Your task to perform on an android device: change the clock display to analog Image 0: 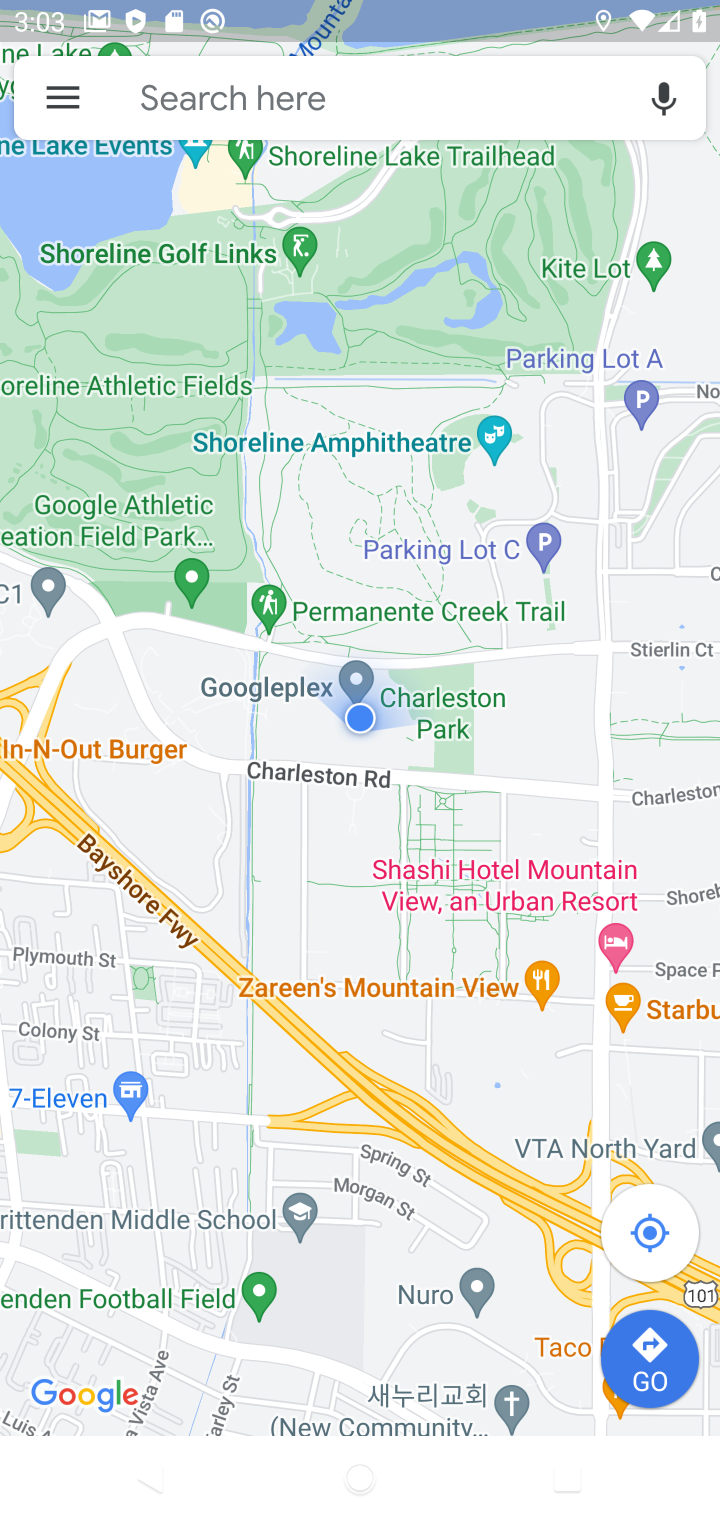
Step 0: press home button
Your task to perform on an android device: change the clock display to analog Image 1: 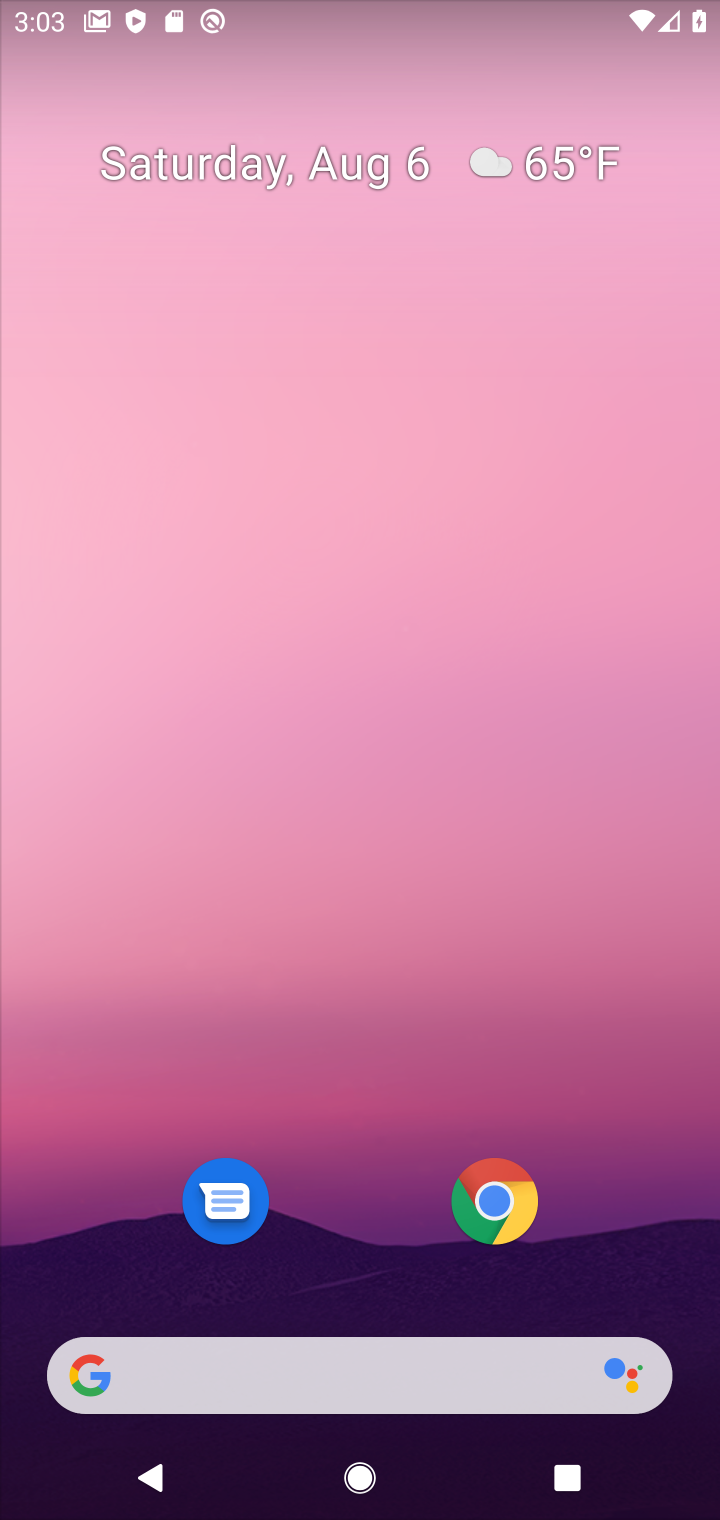
Step 1: drag from (290, 981) to (518, 193)
Your task to perform on an android device: change the clock display to analog Image 2: 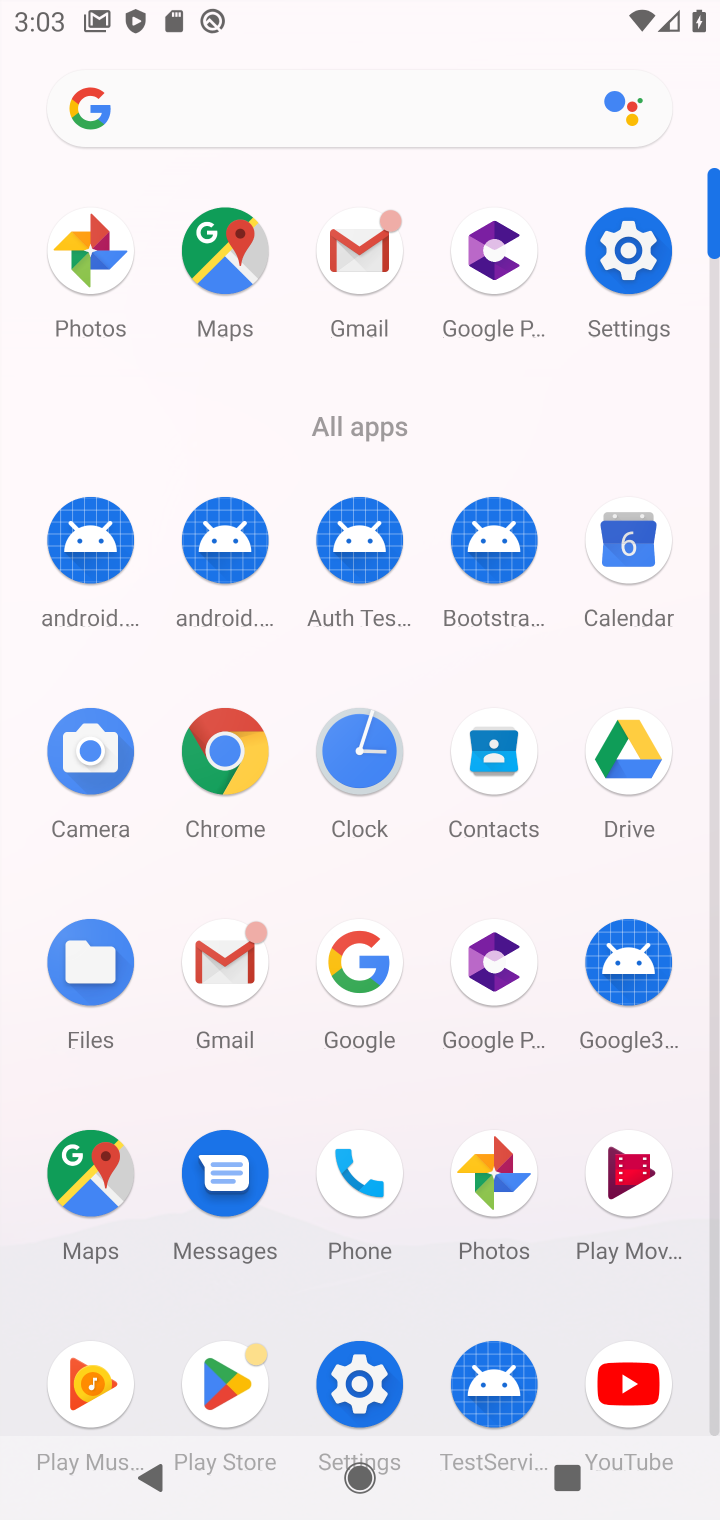
Step 2: click (358, 757)
Your task to perform on an android device: change the clock display to analog Image 3: 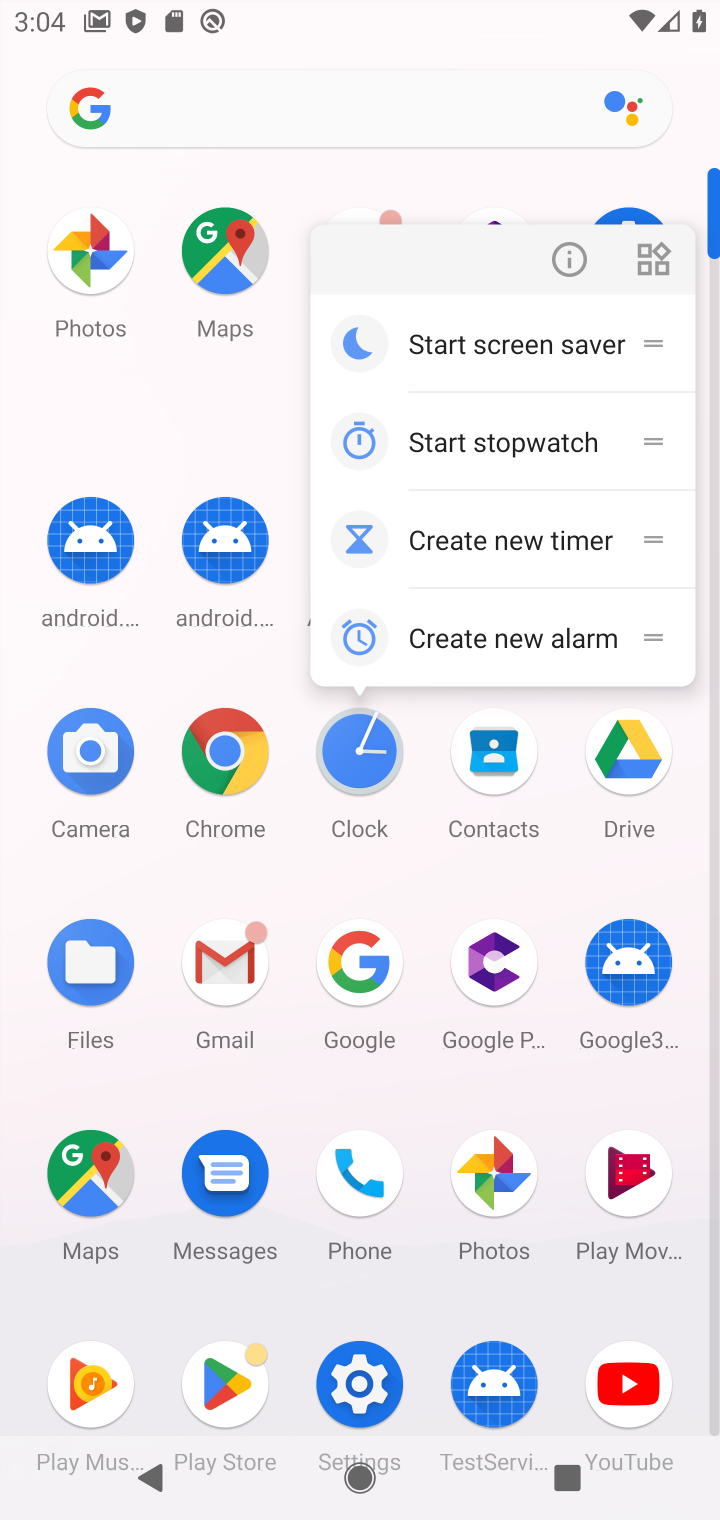
Step 3: click (319, 742)
Your task to perform on an android device: change the clock display to analog Image 4: 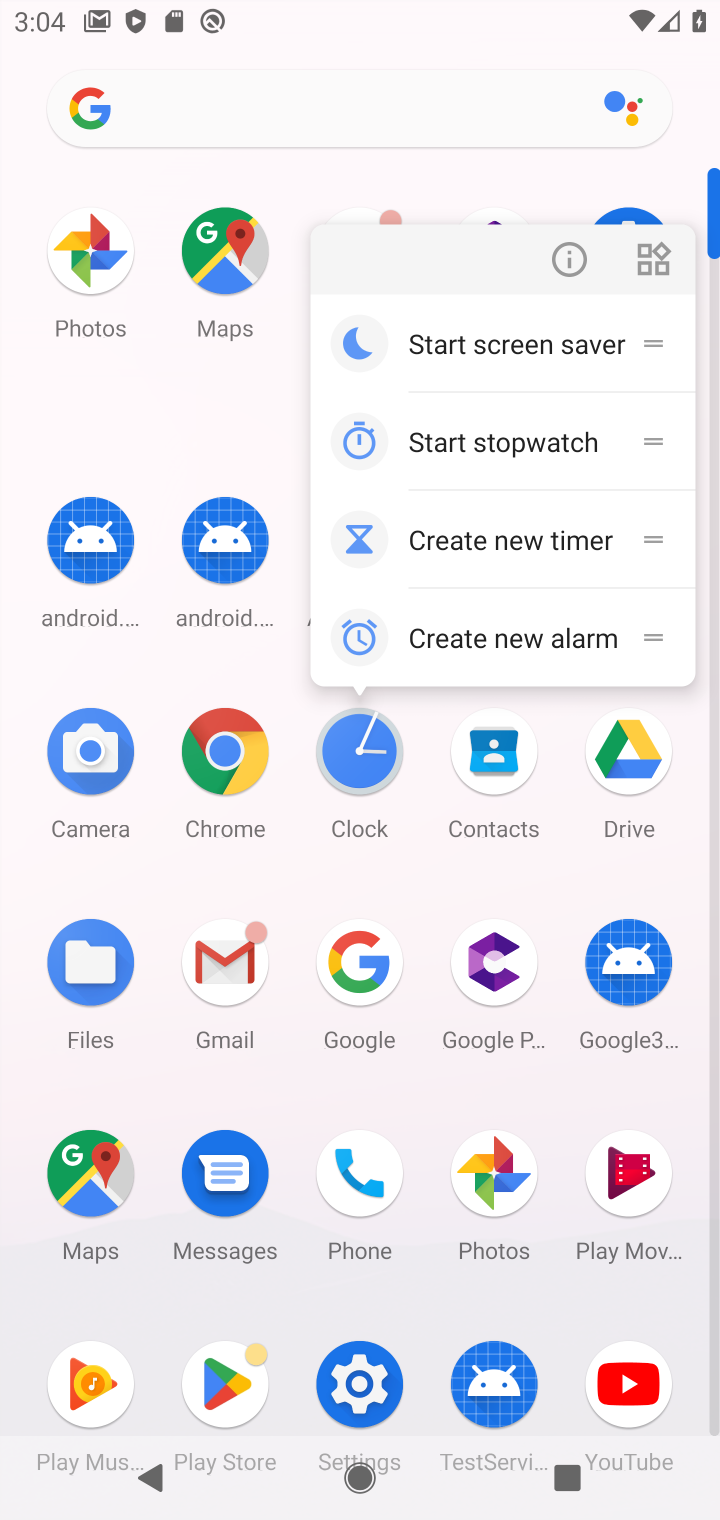
Step 4: click (668, 211)
Your task to perform on an android device: change the clock display to analog Image 5: 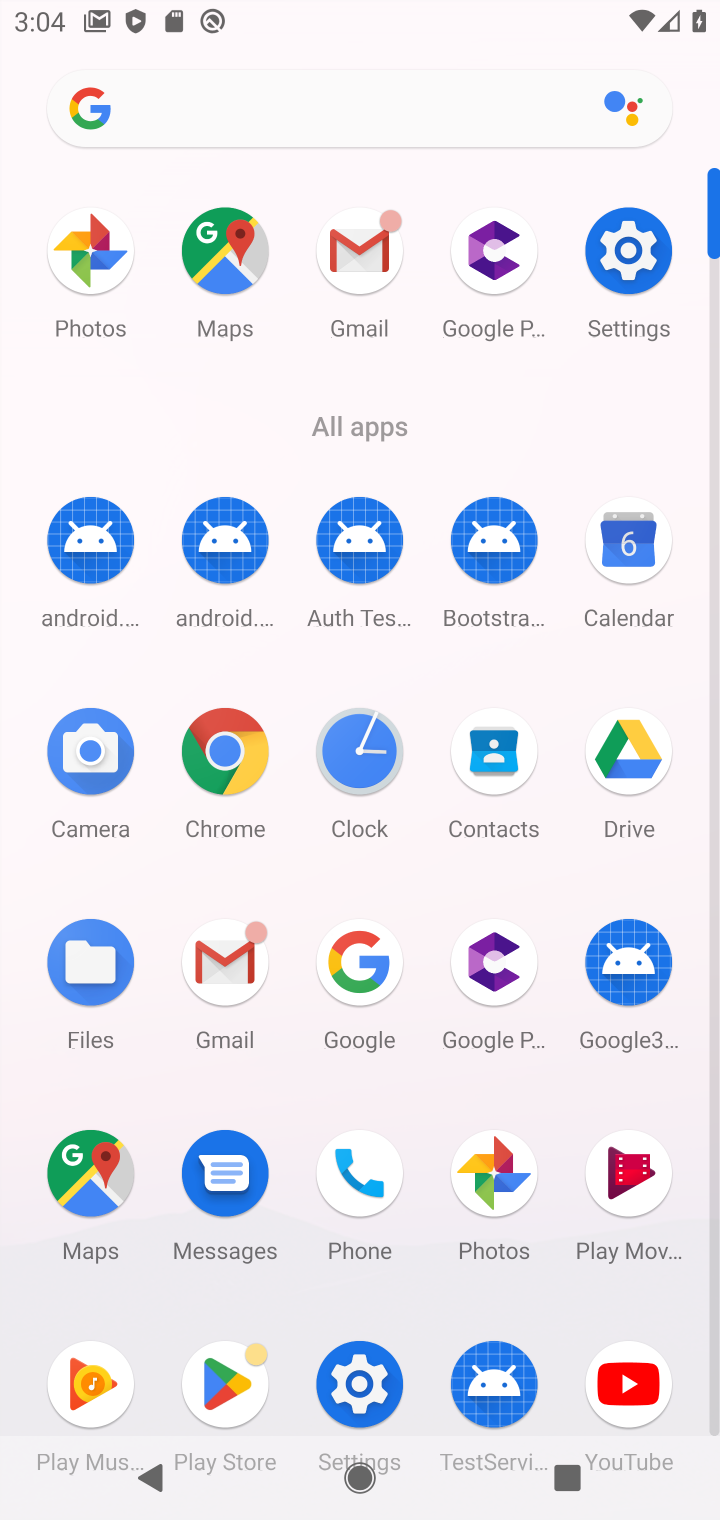
Step 5: click (386, 762)
Your task to perform on an android device: change the clock display to analog Image 6: 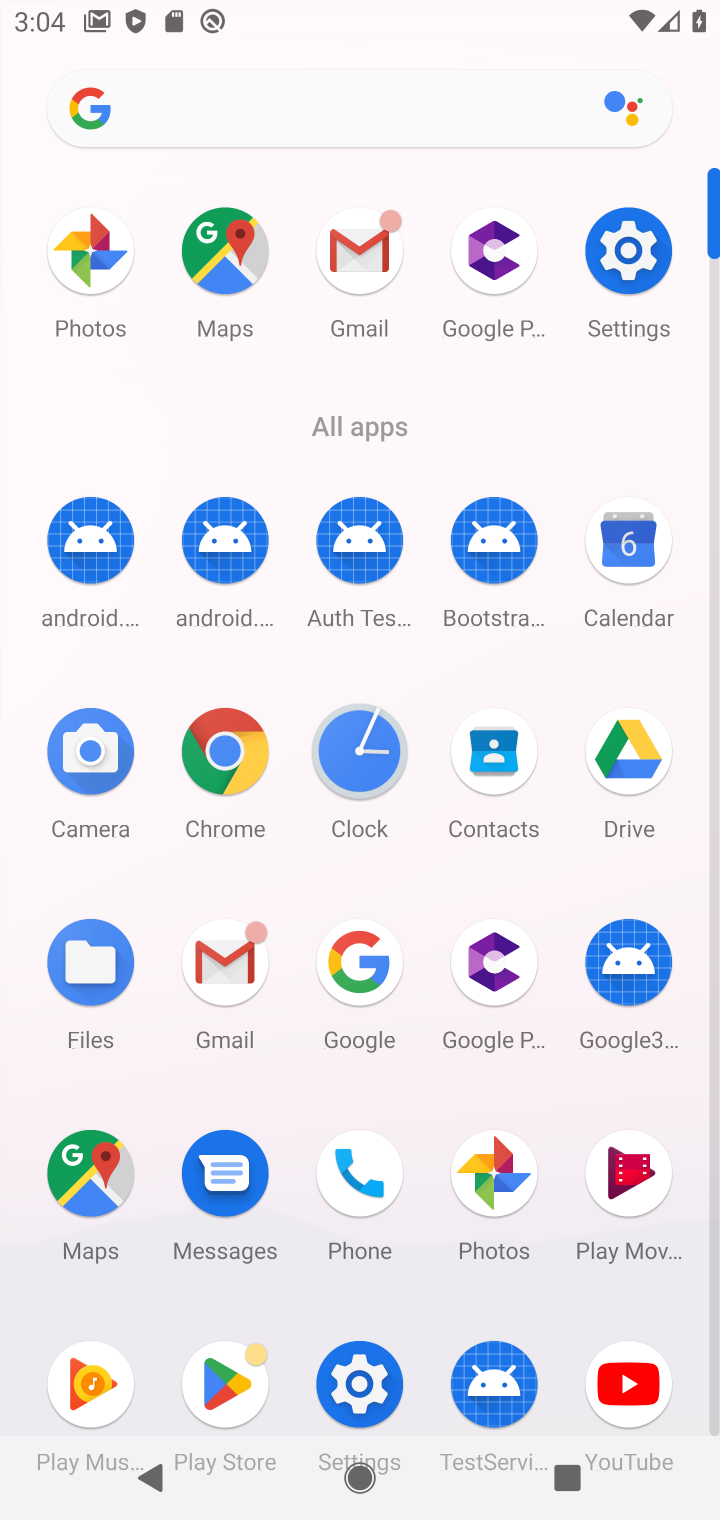
Step 6: click (386, 762)
Your task to perform on an android device: change the clock display to analog Image 7: 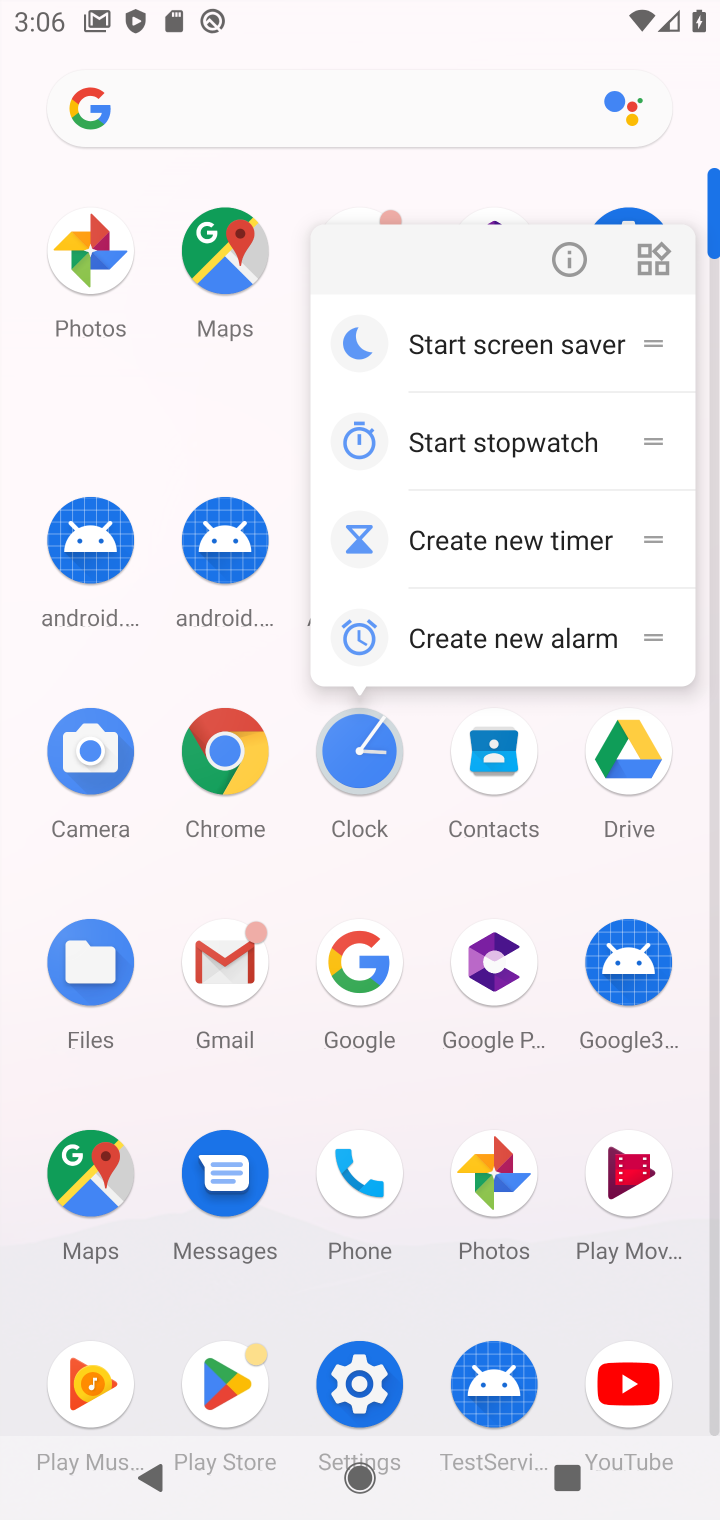
Step 7: click (345, 755)
Your task to perform on an android device: change the clock display to analog Image 8: 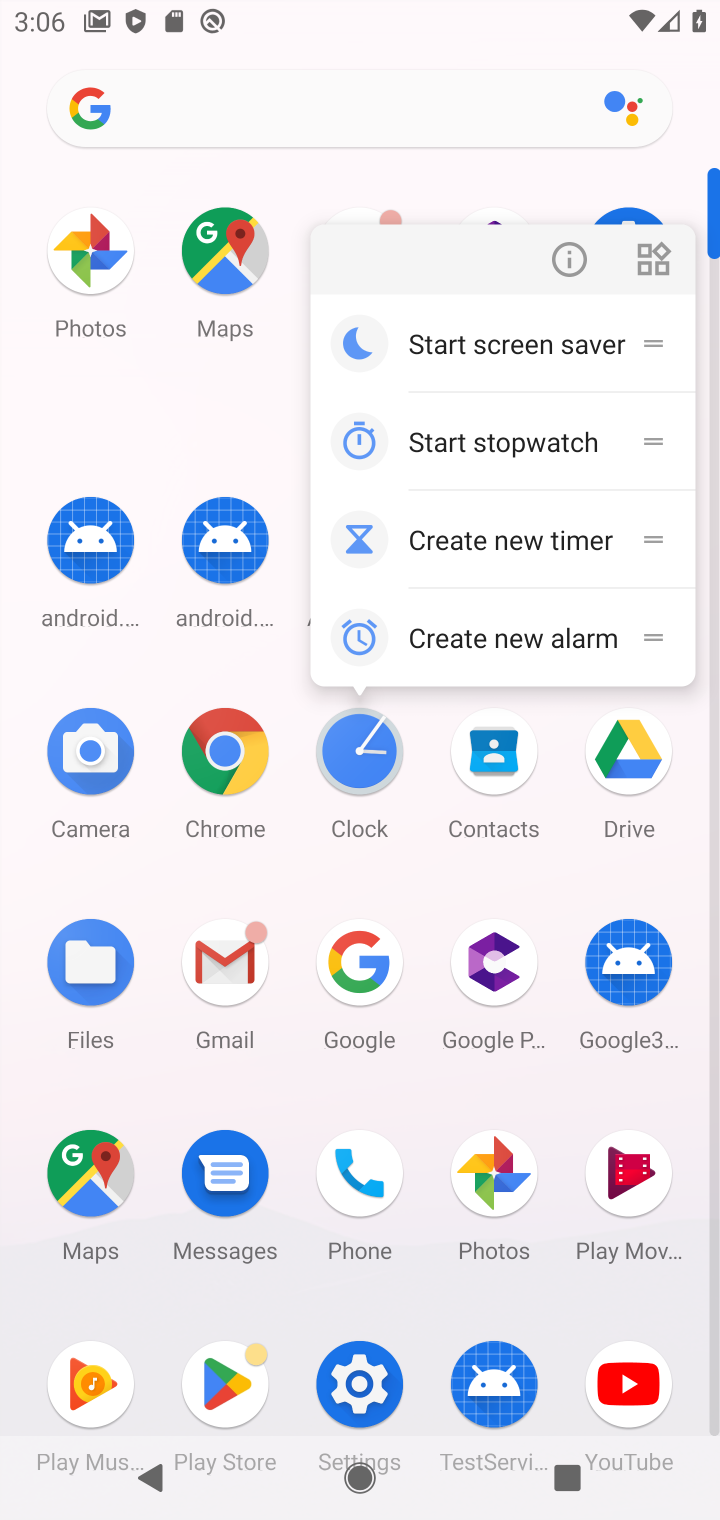
Step 8: click (345, 755)
Your task to perform on an android device: change the clock display to analog Image 9: 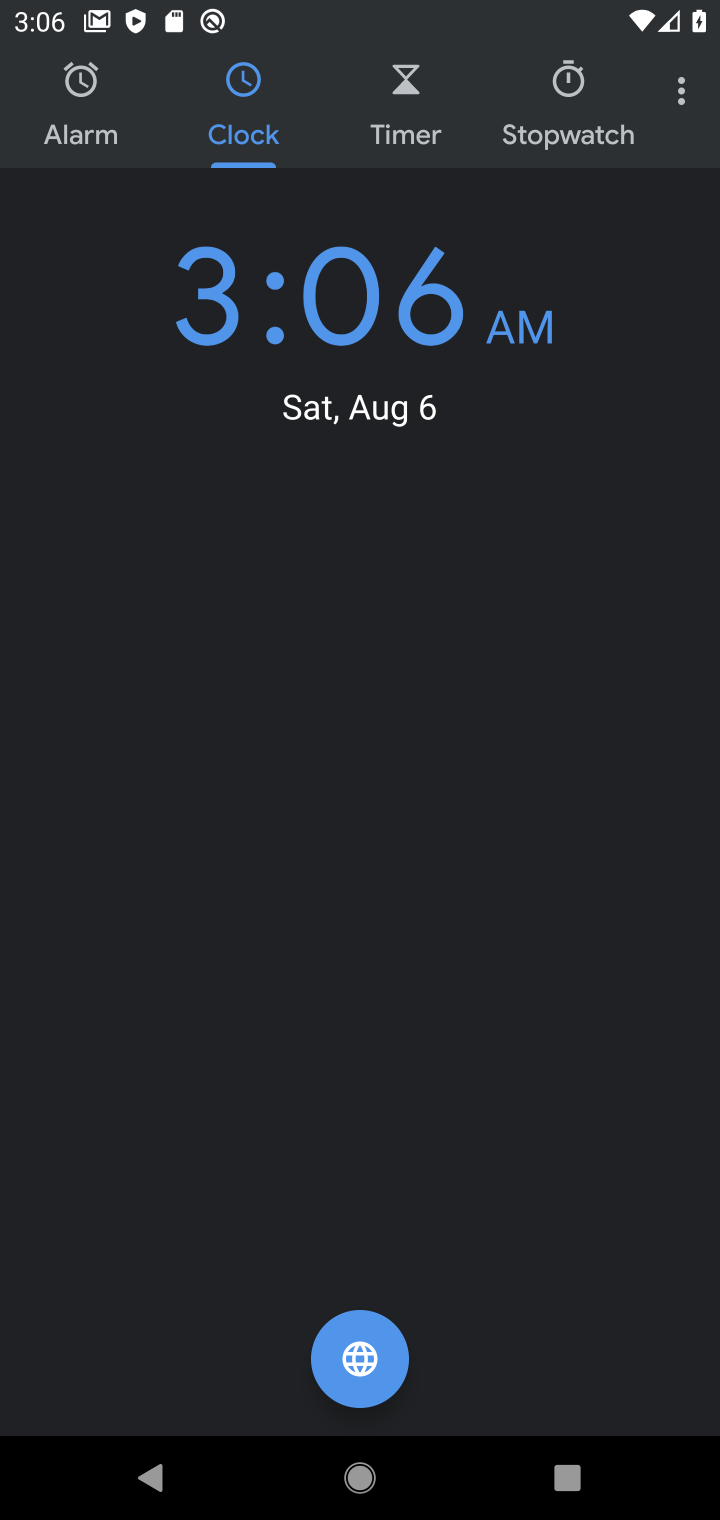
Step 9: click (704, 92)
Your task to perform on an android device: change the clock display to analog Image 10: 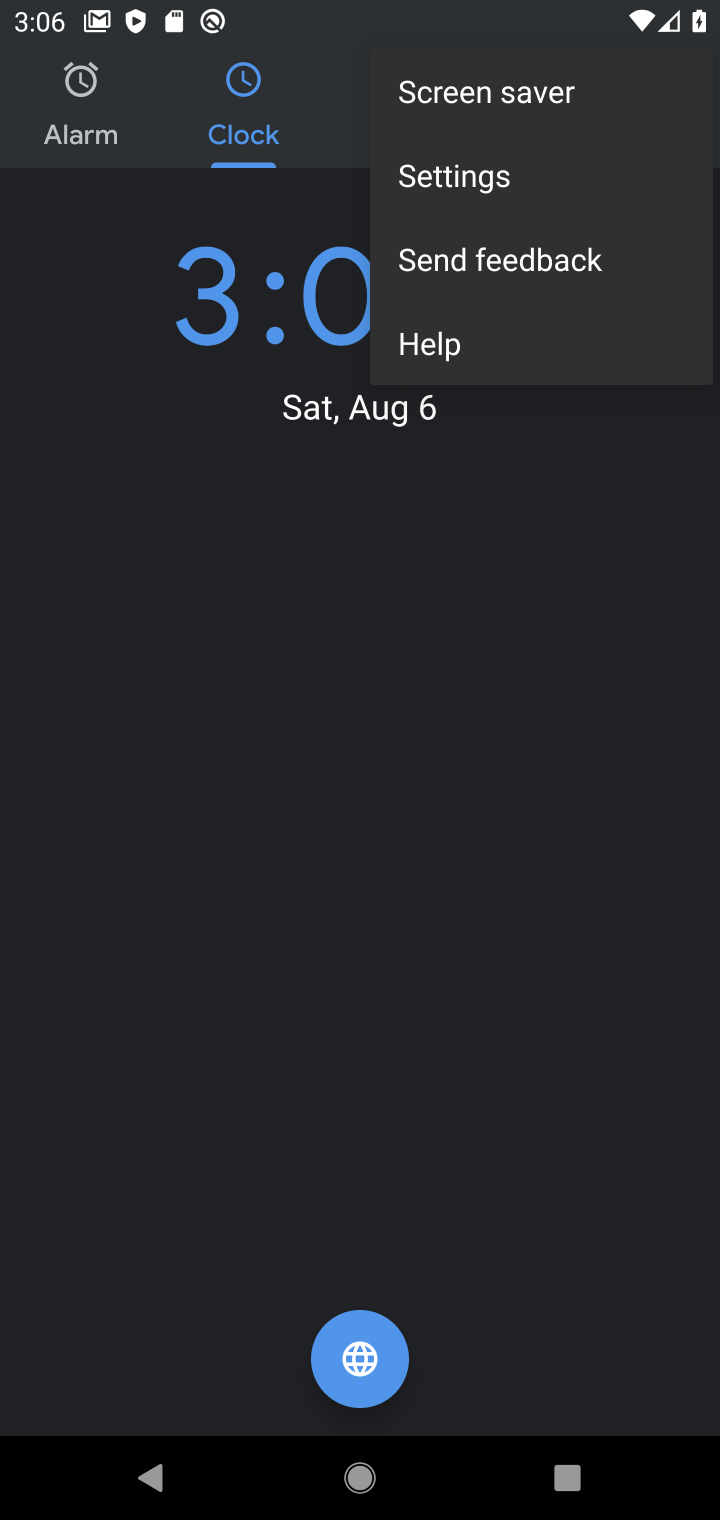
Step 10: click (561, 194)
Your task to perform on an android device: change the clock display to analog Image 11: 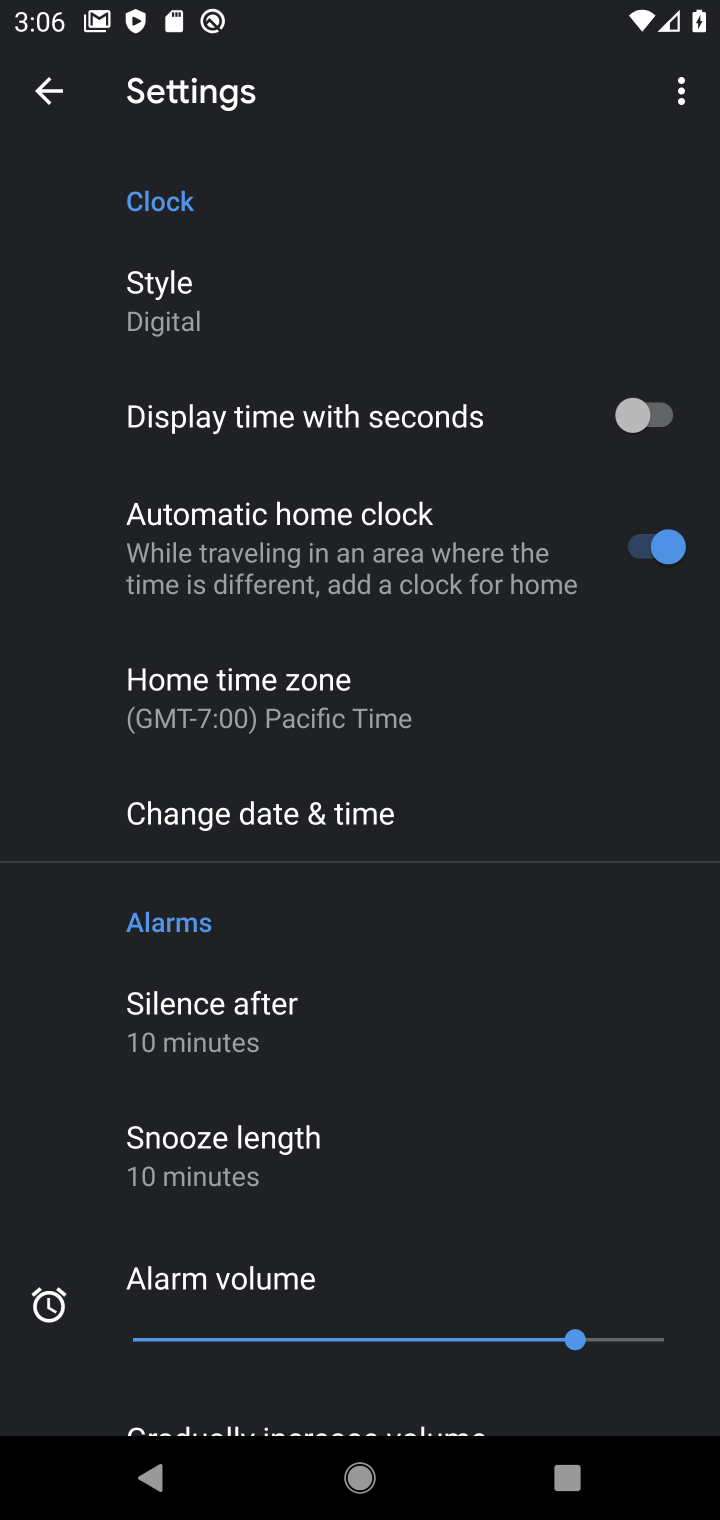
Step 11: click (190, 254)
Your task to perform on an android device: change the clock display to analog Image 12: 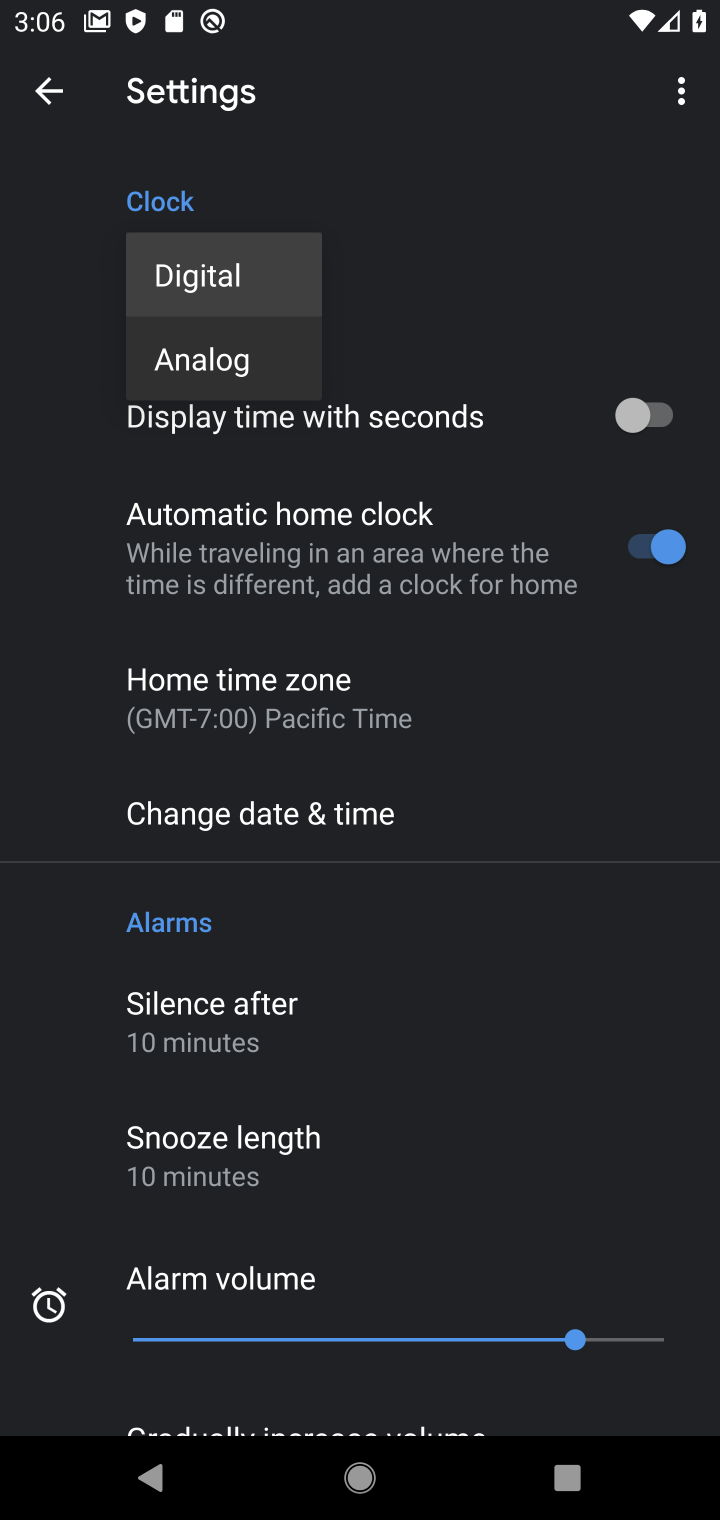
Step 12: click (258, 368)
Your task to perform on an android device: change the clock display to analog Image 13: 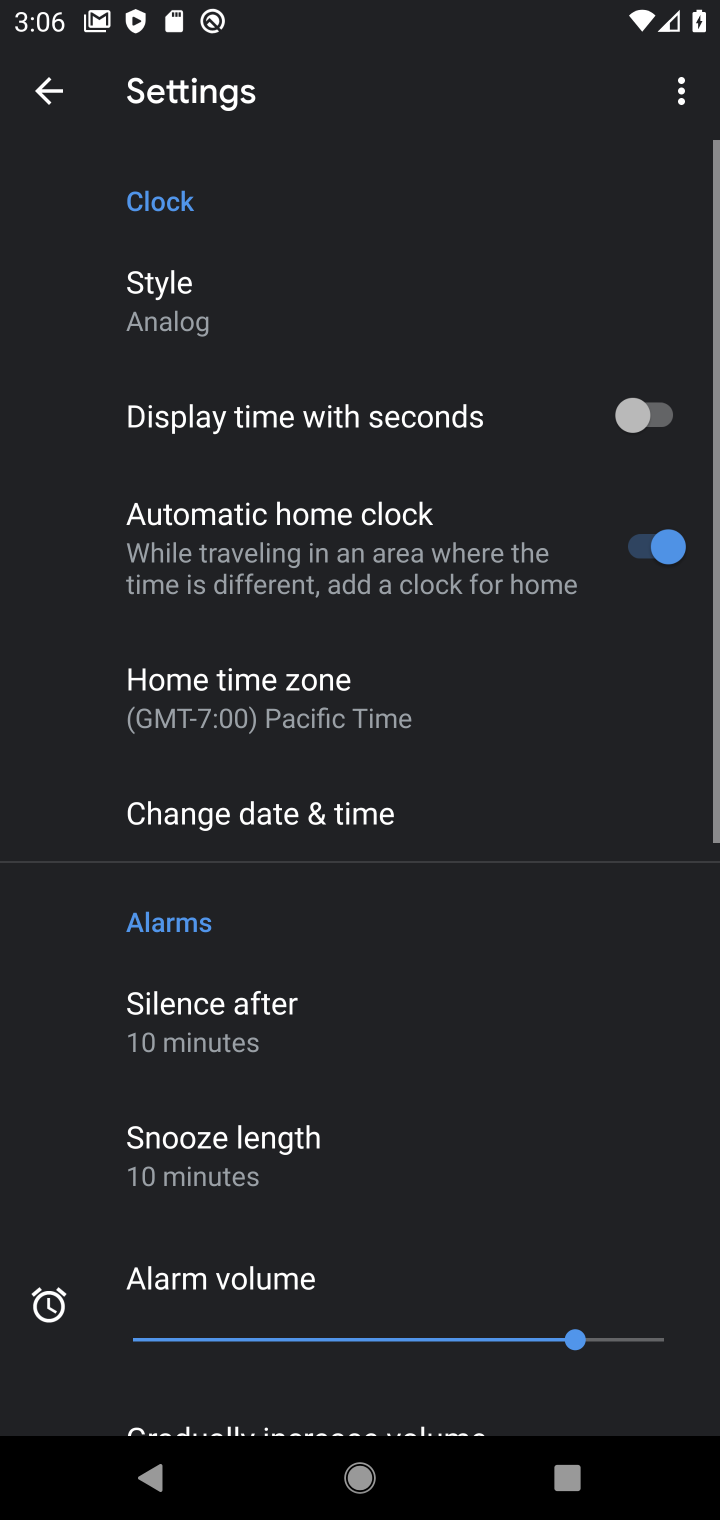
Step 13: task complete